Your task to perform on an android device: check out phone information Image 0: 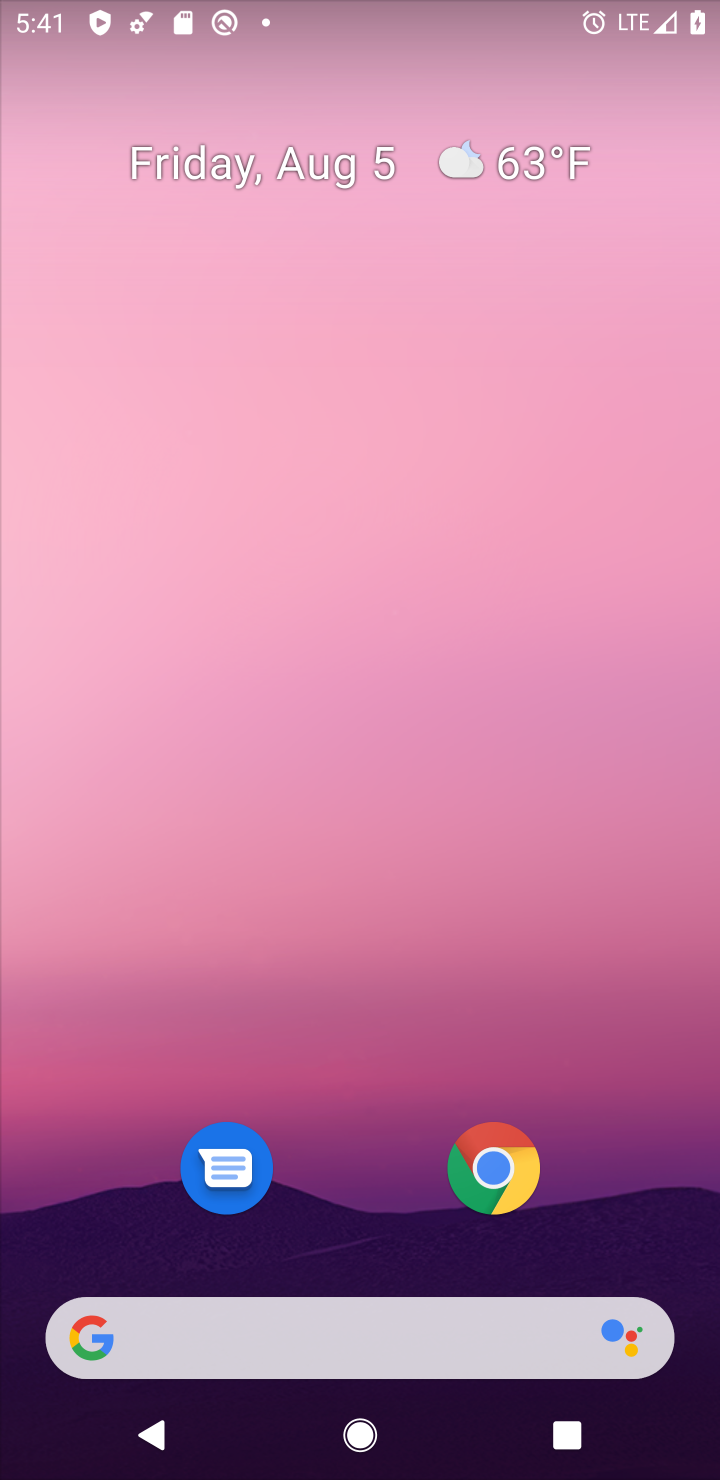
Step 0: drag from (425, 852) to (565, 470)
Your task to perform on an android device: check out phone information Image 1: 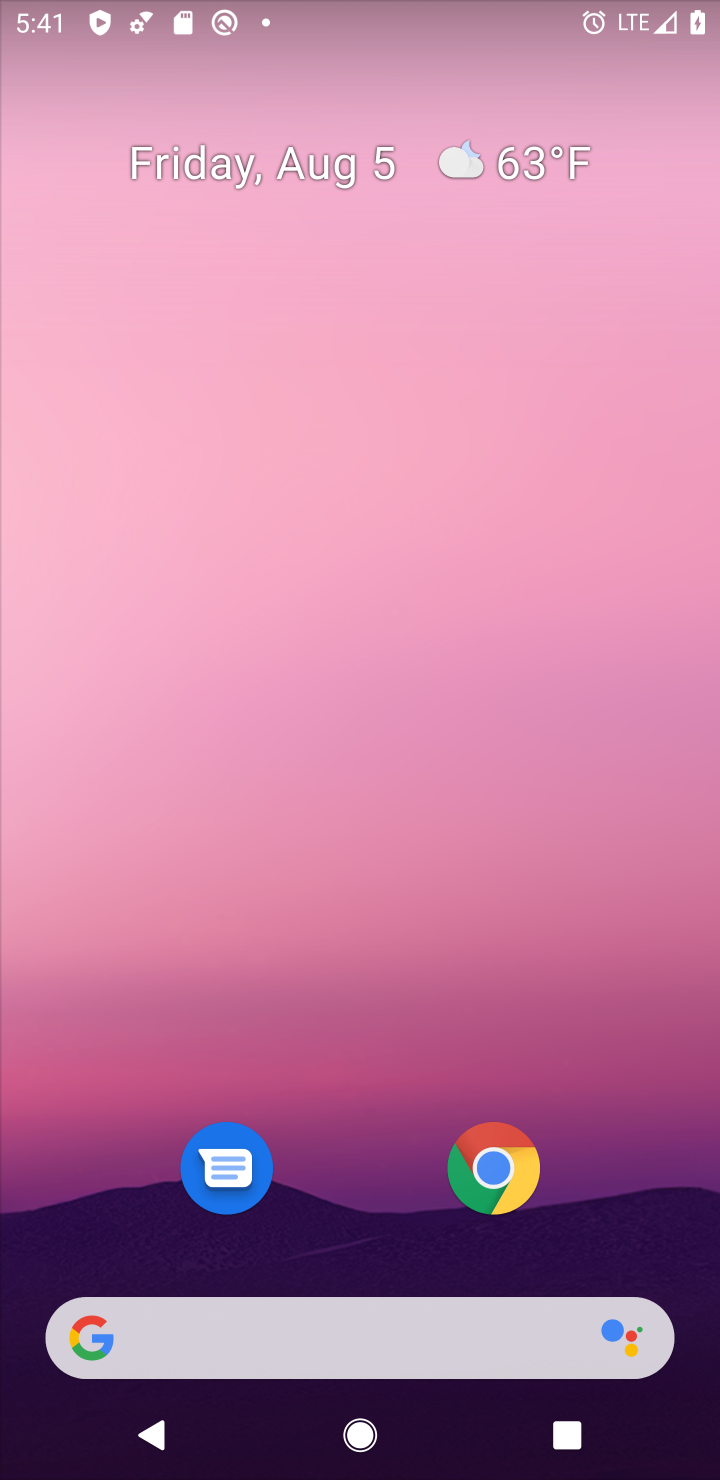
Step 1: drag from (323, 1269) to (254, 449)
Your task to perform on an android device: check out phone information Image 2: 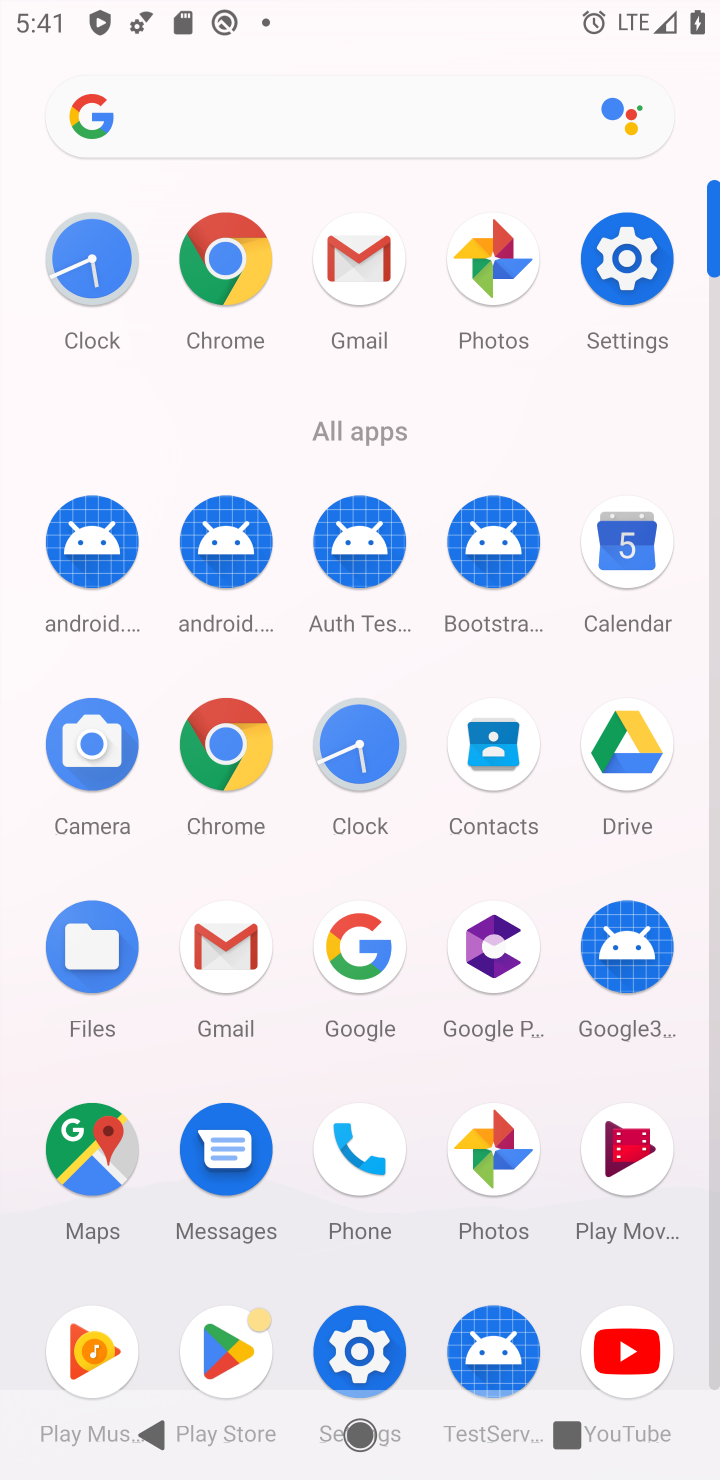
Step 2: click (624, 270)
Your task to perform on an android device: check out phone information Image 3: 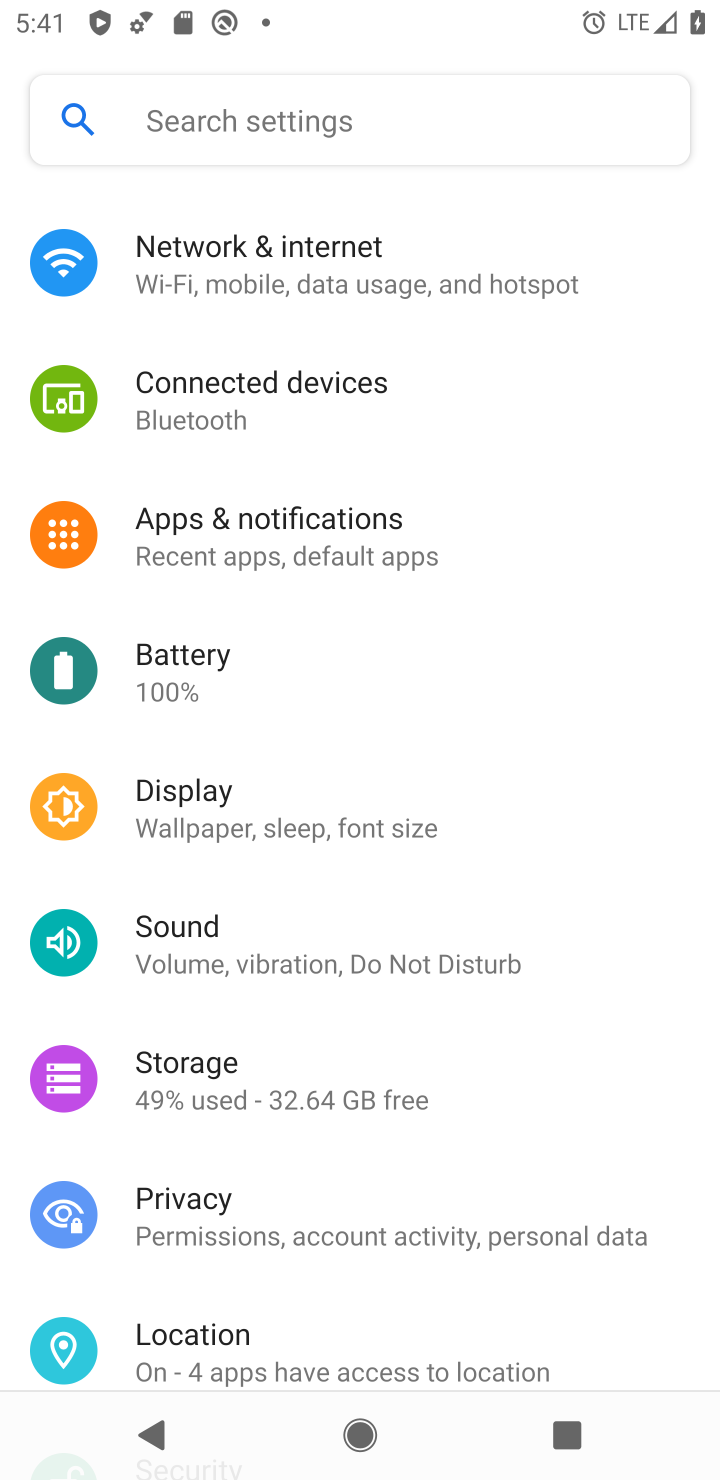
Step 3: drag from (553, 1183) to (523, 239)
Your task to perform on an android device: check out phone information Image 4: 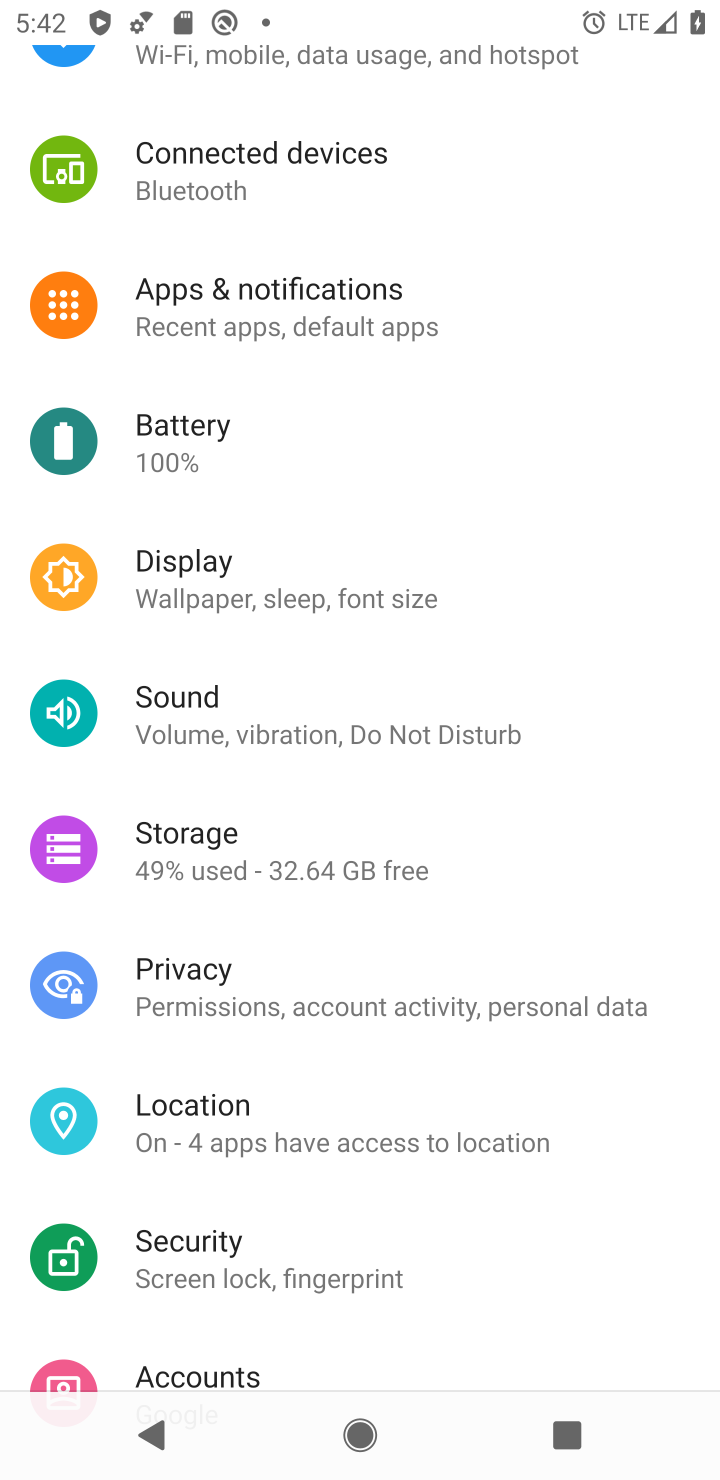
Step 4: drag from (585, 1279) to (603, 142)
Your task to perform on an android device: check out phone information Image 5: 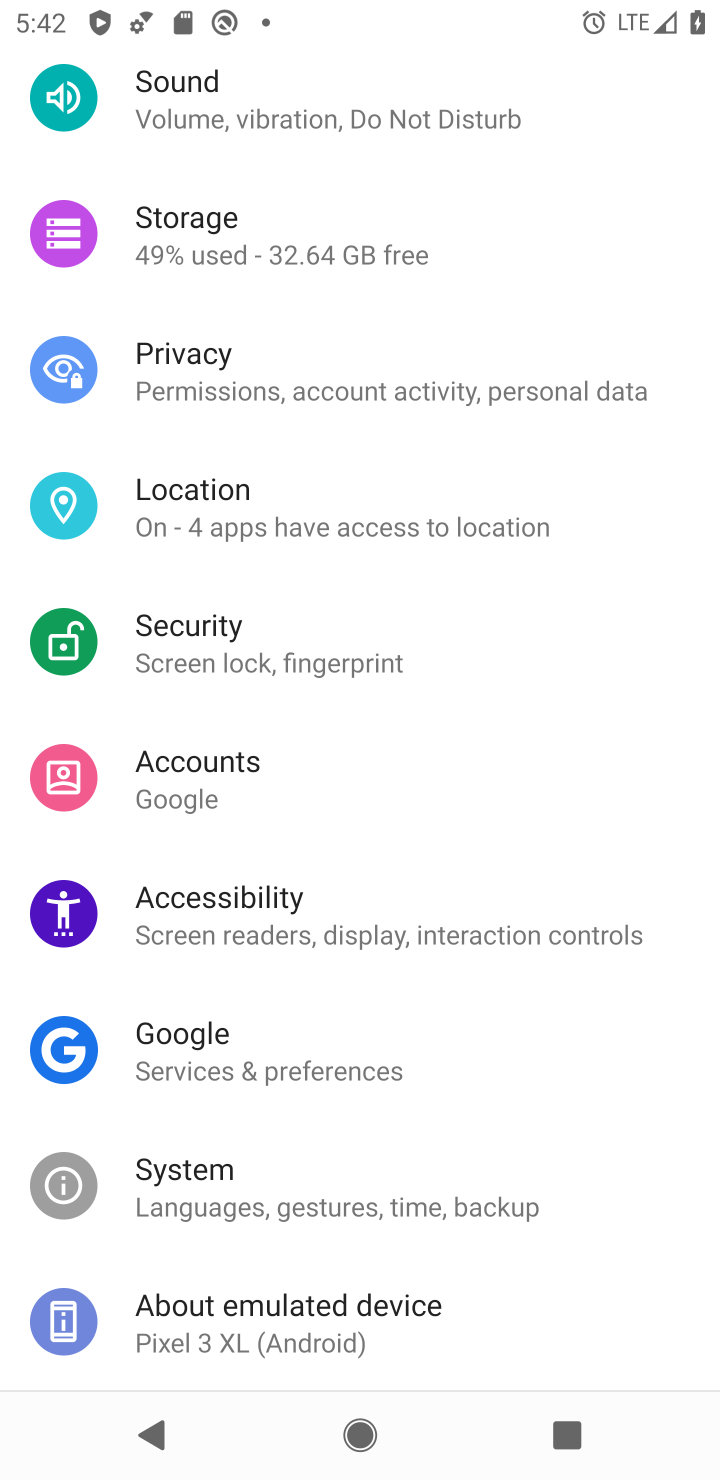
Step 5: click (255, 1326)
Your task to perform on an android device: check out phone information Image 6: 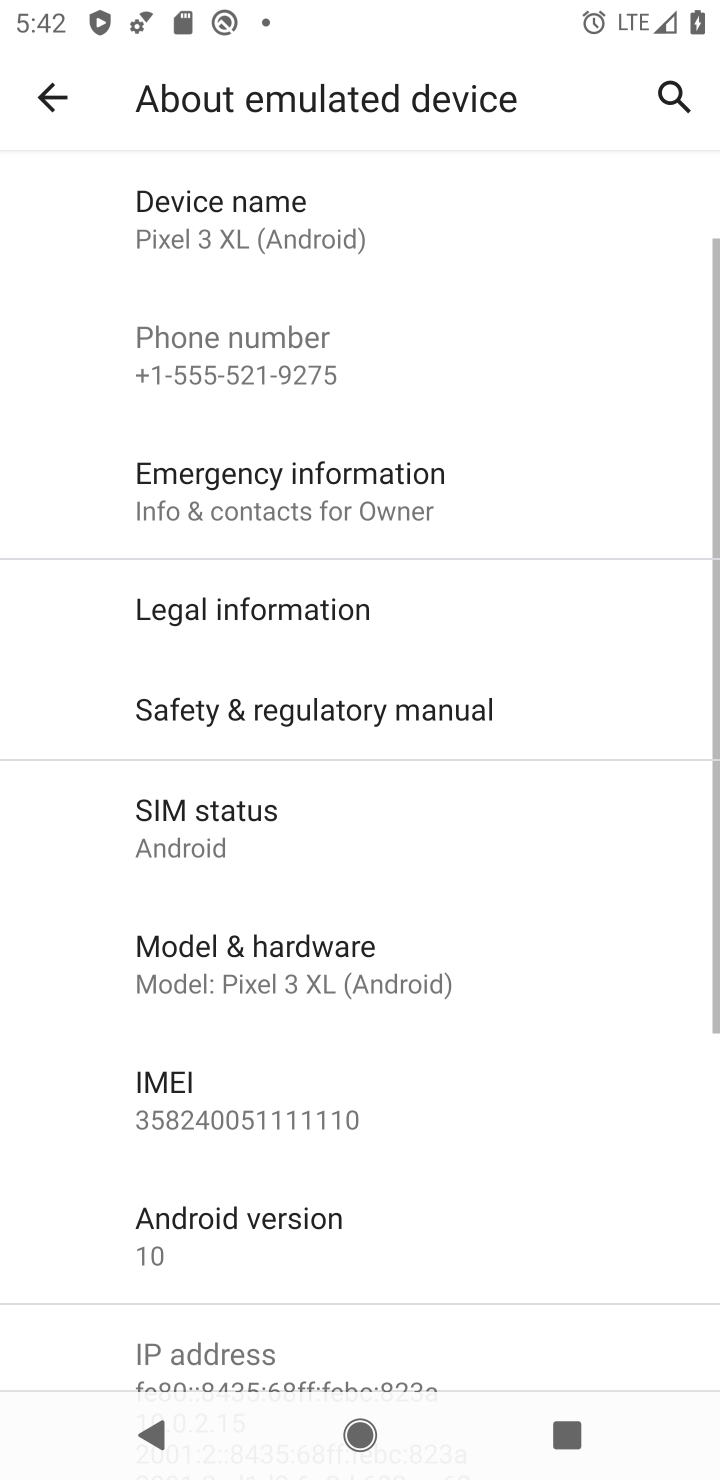
Step 6: task complete